Your task to perform on an android device: turn pop-ups off in chrome Image 0: 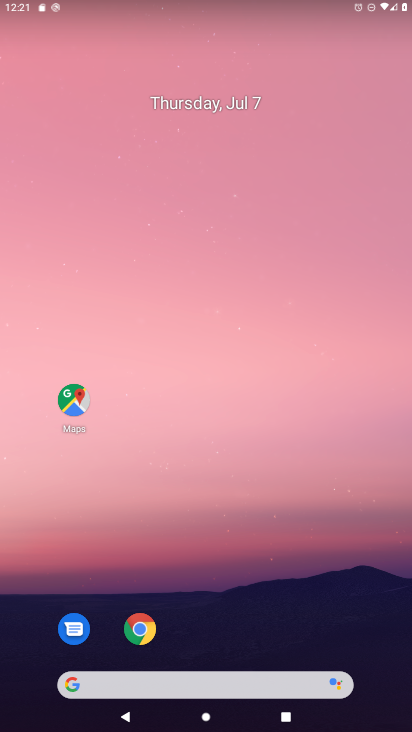
Step 0: click (159, 631)
Your task to perform on an android device: turn pop-ups off in chrome Image 1: 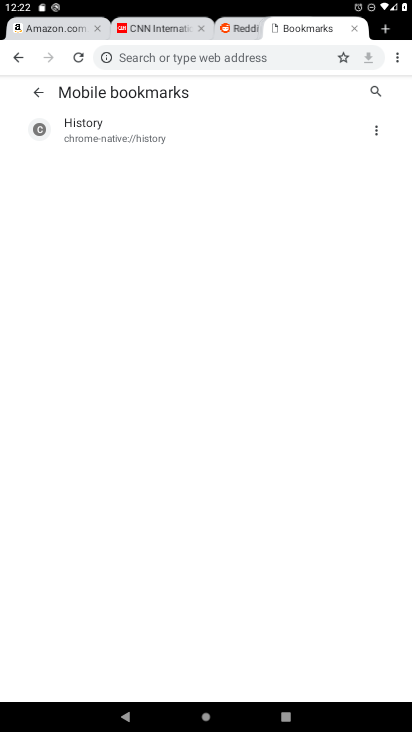
Step 1: click (402, 48)
Your task to perform on an android device: turn pop-ups off in chrome Image 2: 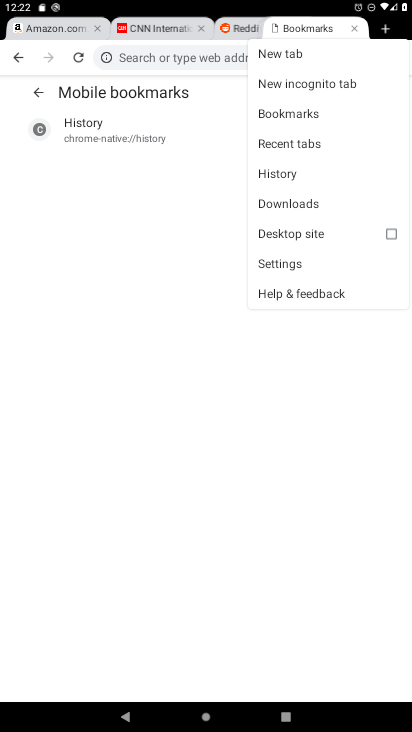
Step 2: click (273, 271)
Your task to perform on an android device: turn pop-ups off in chrome Image 3: 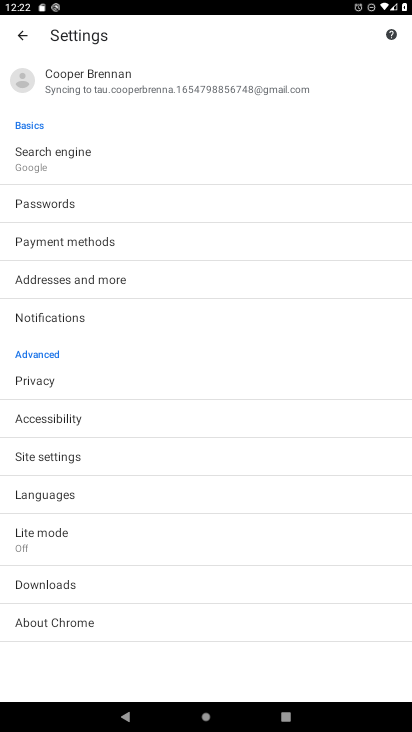
Step 3: click (102, 455)
Your task to perform on an android device: turn pop-ups off in chrome Image 4: 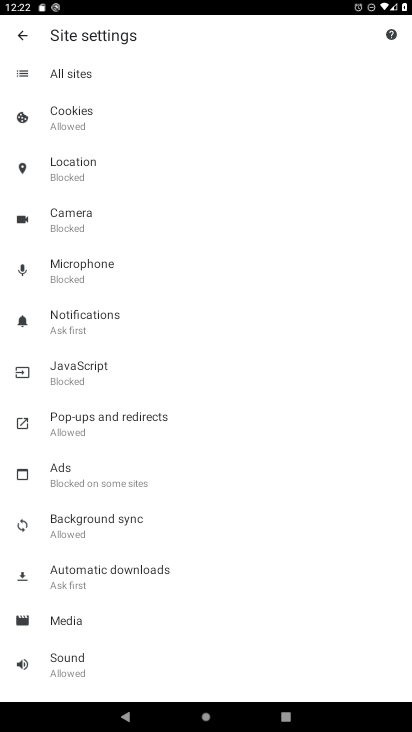
Step 4: click (128, 430)
Your task to perform on an android device: turn pop-ups off in chrome Image 5: 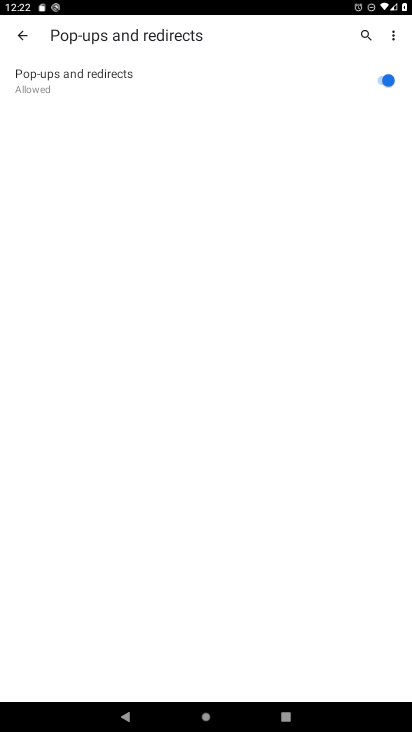
Step 5: click (376, 80)
Your task to perform on an android device: turn pop-ups off in chrome Image 6: 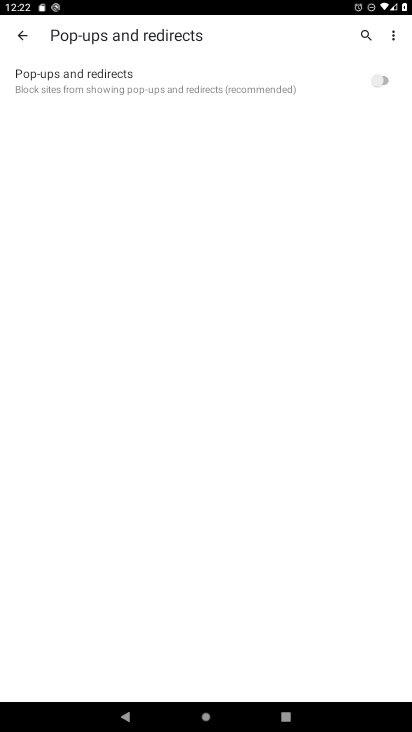
Step 6: task complete